Your task to perform on an android device: uninstall "Lyft - Rideshare, Bikes, Scooters & Transit" Image 0: 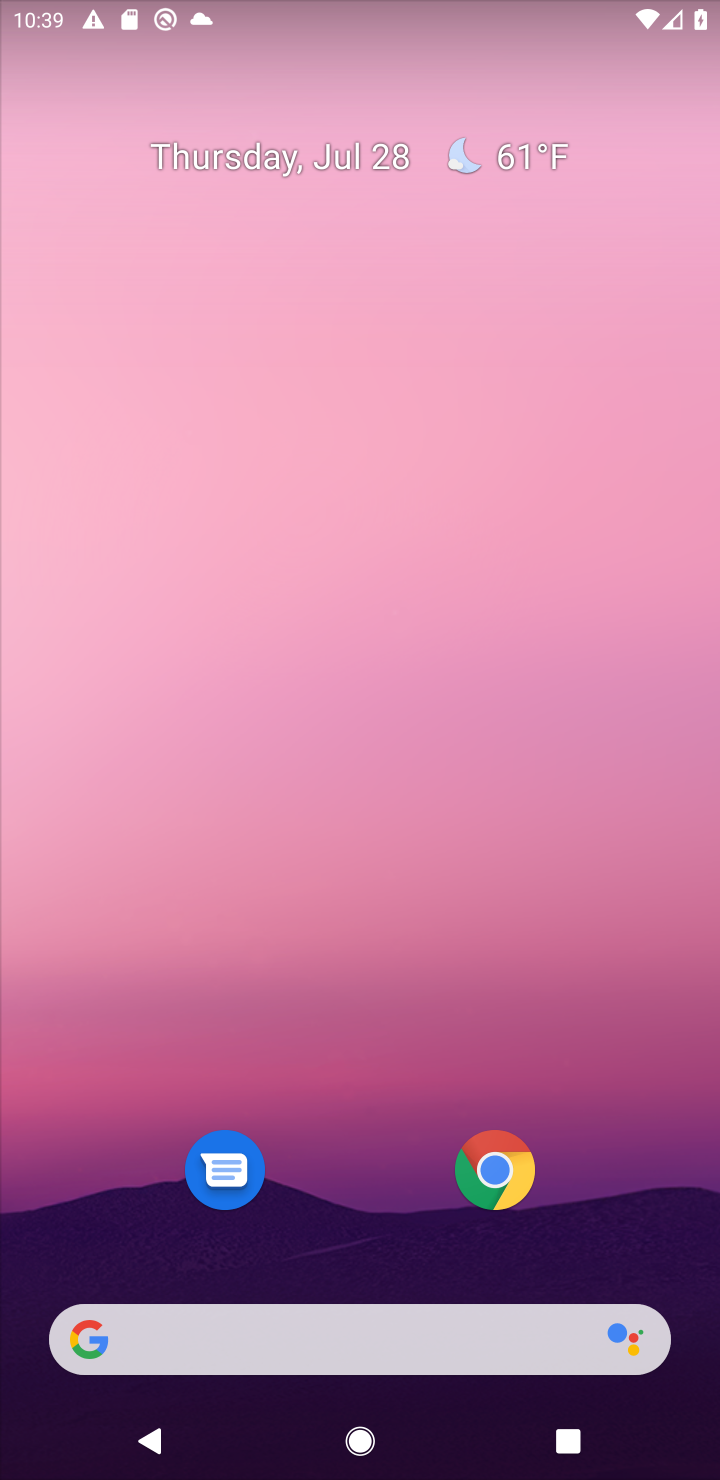
Step 0: press home button
Your task to perform on an android device: uninstall "Lyft - Rideshare, Bikes, Scooters & Transit" Image 1: 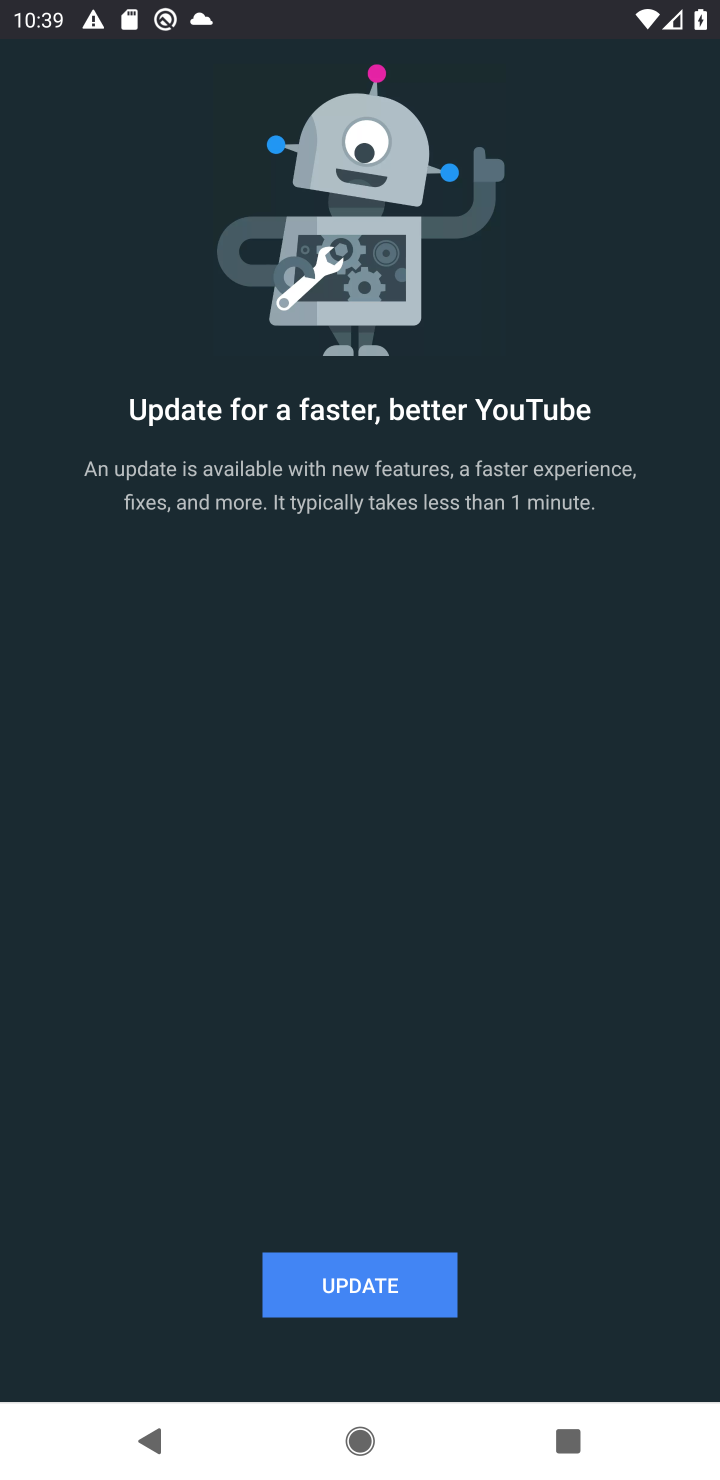
Step 1: drag from (293, 1234) to (484, 0)
Your task to perform on an android device: uninstall "Lyft - Rideshare, Bikes, Scooters & Transit" Image 2: 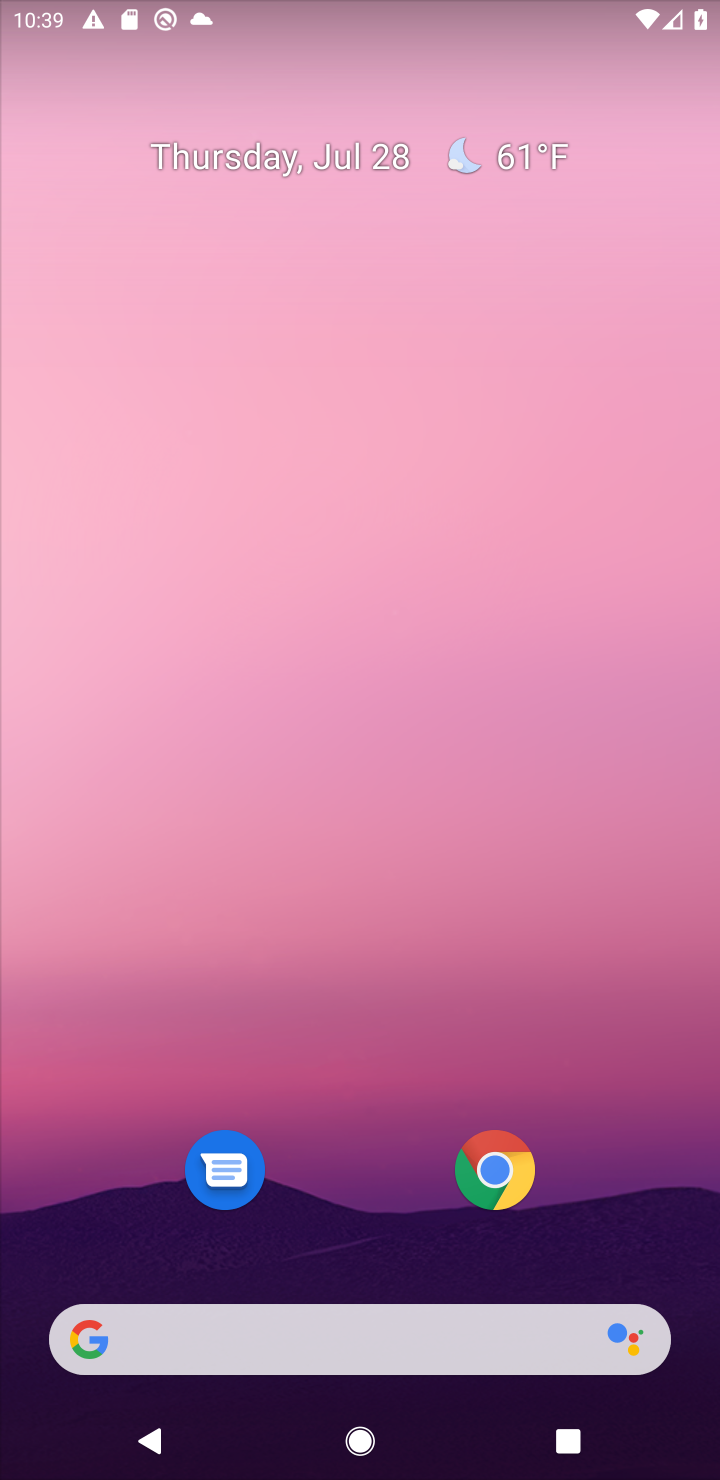
Step 2: drag from (340, 1163) to (507, 0)
Your task to perform on an android device: uninstall "Lyft - Rideshare, Bikes, Scooters & Transit" Image 3: 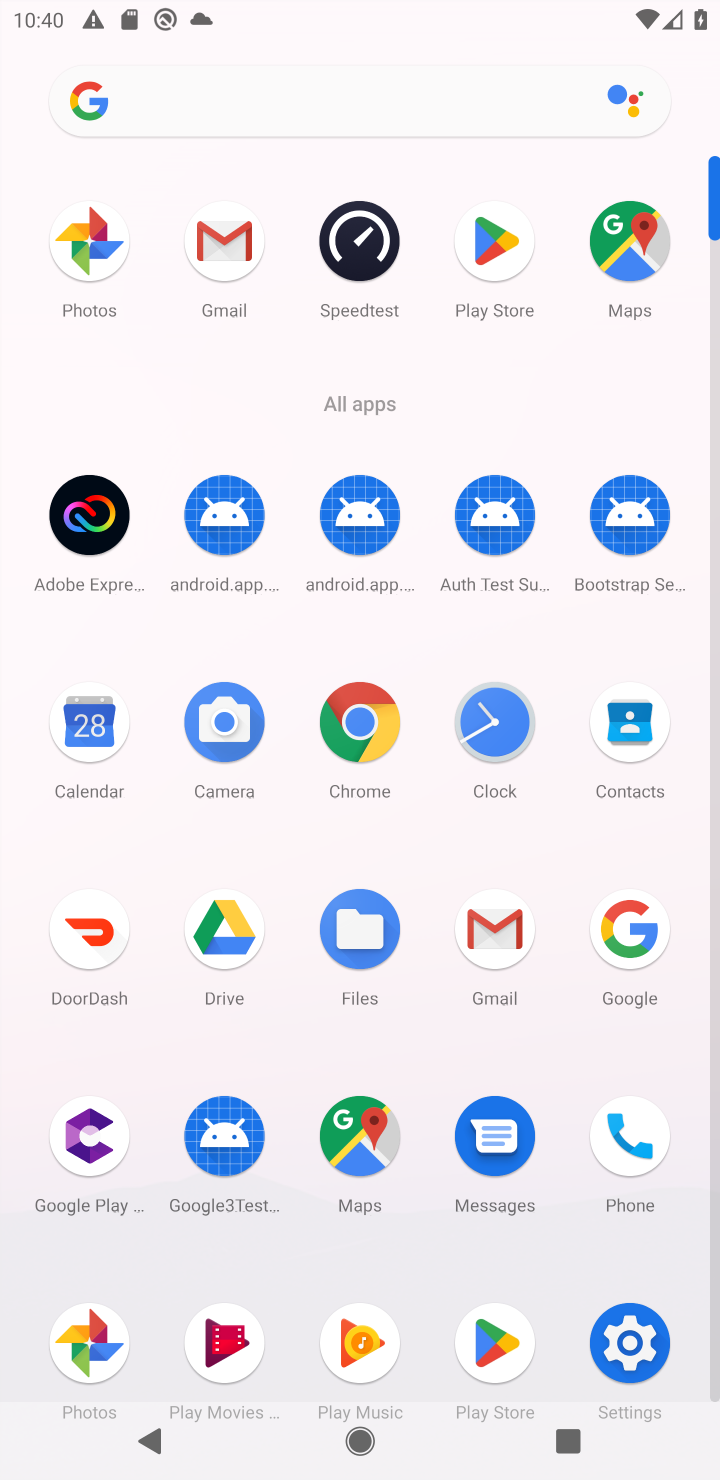
Step 3: click (519, 298)
Your task to perform on an android device: uninstall "Lyft - Rideshare, Bikes, Scooters & Transit" Image 4: 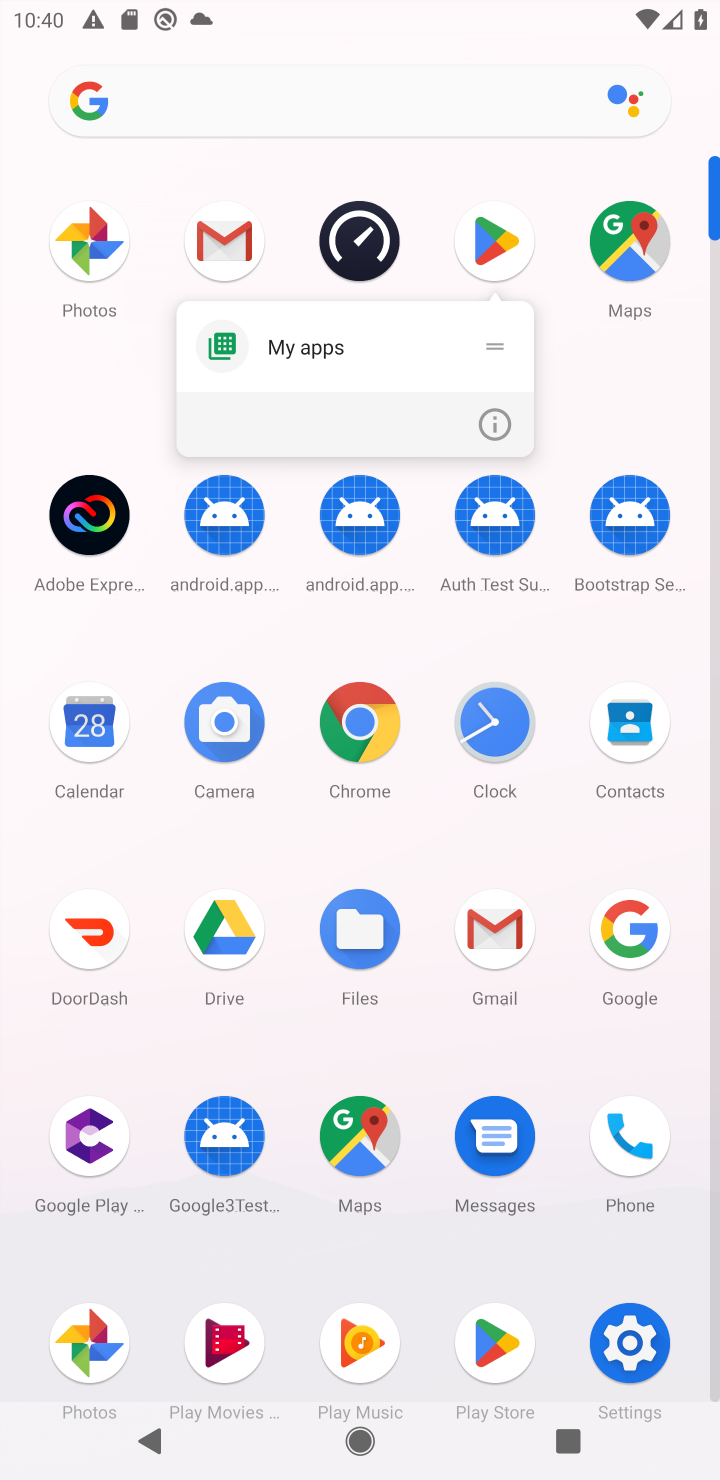
Step 4: click (505, 239)
Your task to perform on an android device: uninstall "Lyft - Rideshare, Bikes, Scooters & Transit" Image 5: 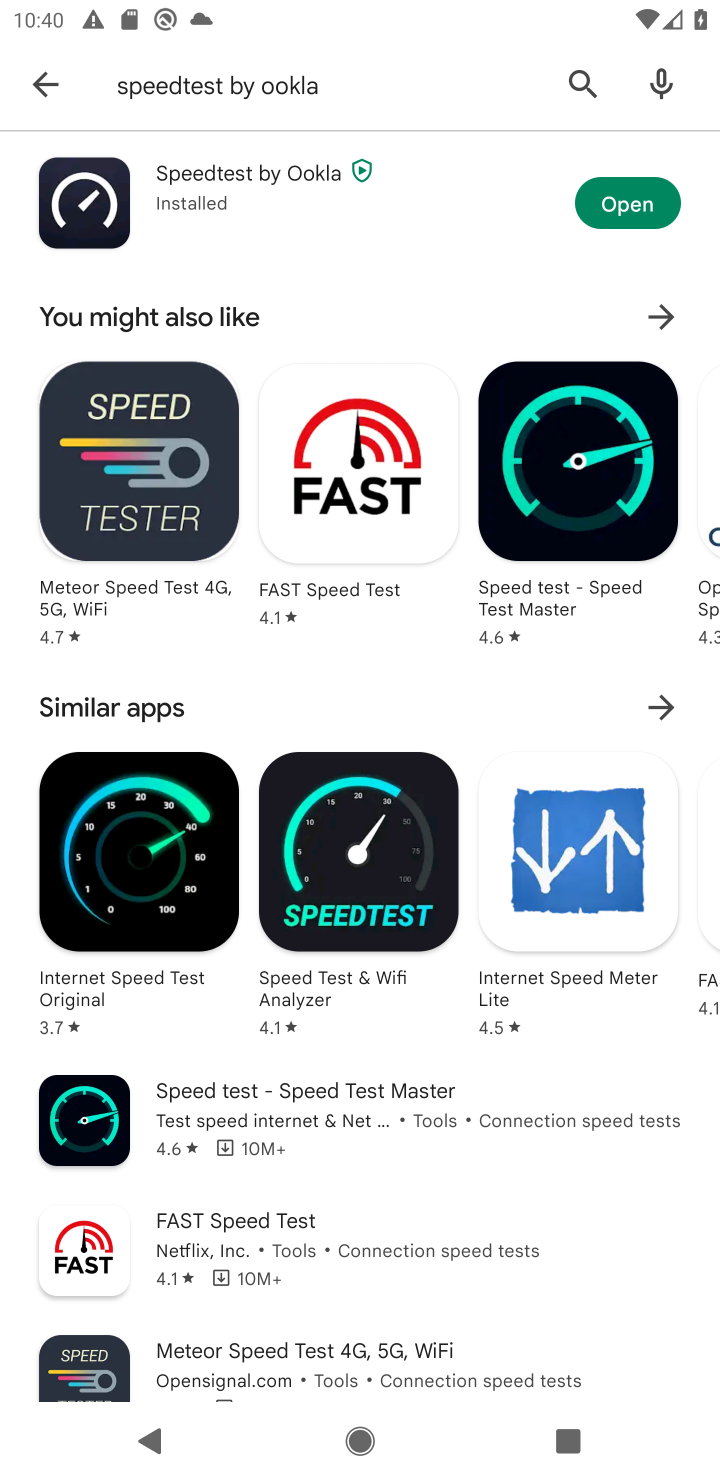
Step 5: click (265, 81)
Your task to perform on an android device: uninstall "Lyft - Rideshare, Bikes, Scooters & Transit" Image 6: 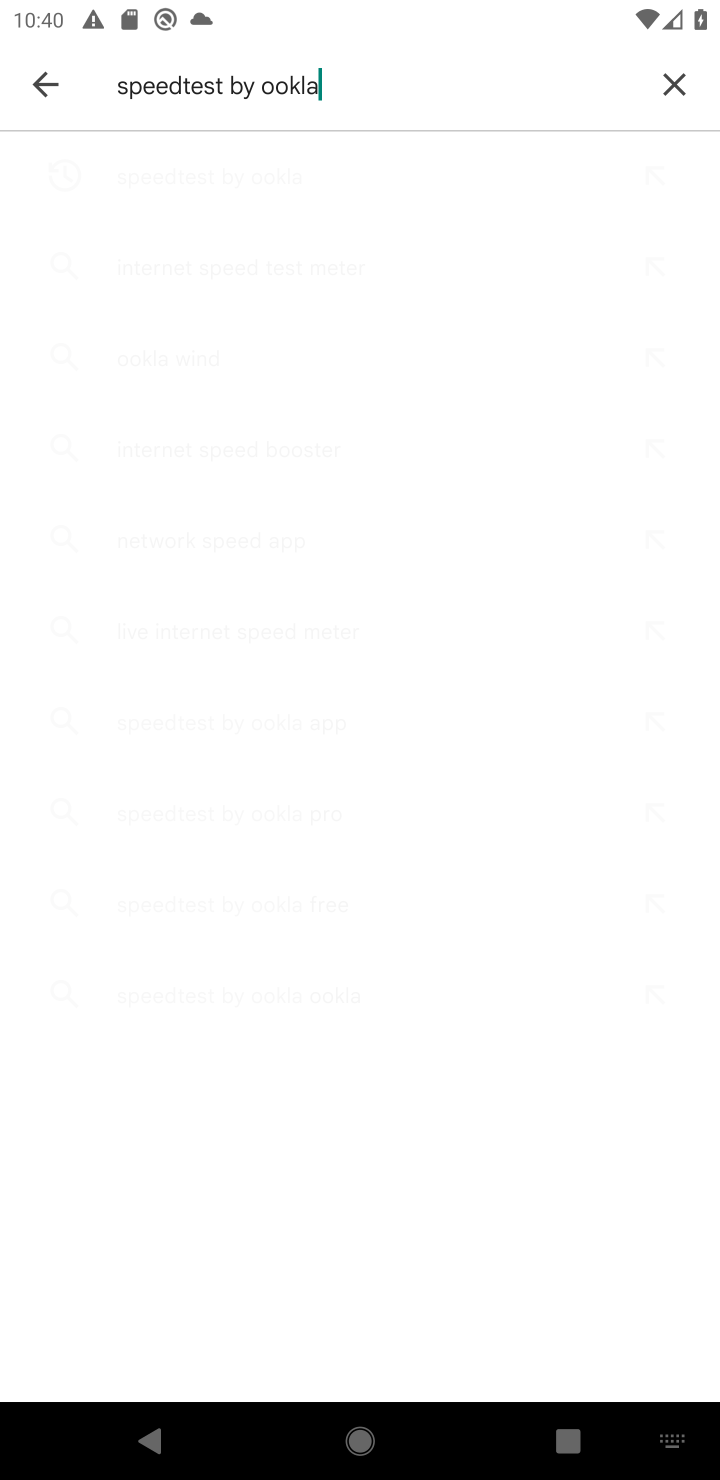
Step 6: click (660, 83)
Your task to perform on an android device: uninstall "Lyft - Rideshare, Bikes, Scooters & Transit" Image 7: 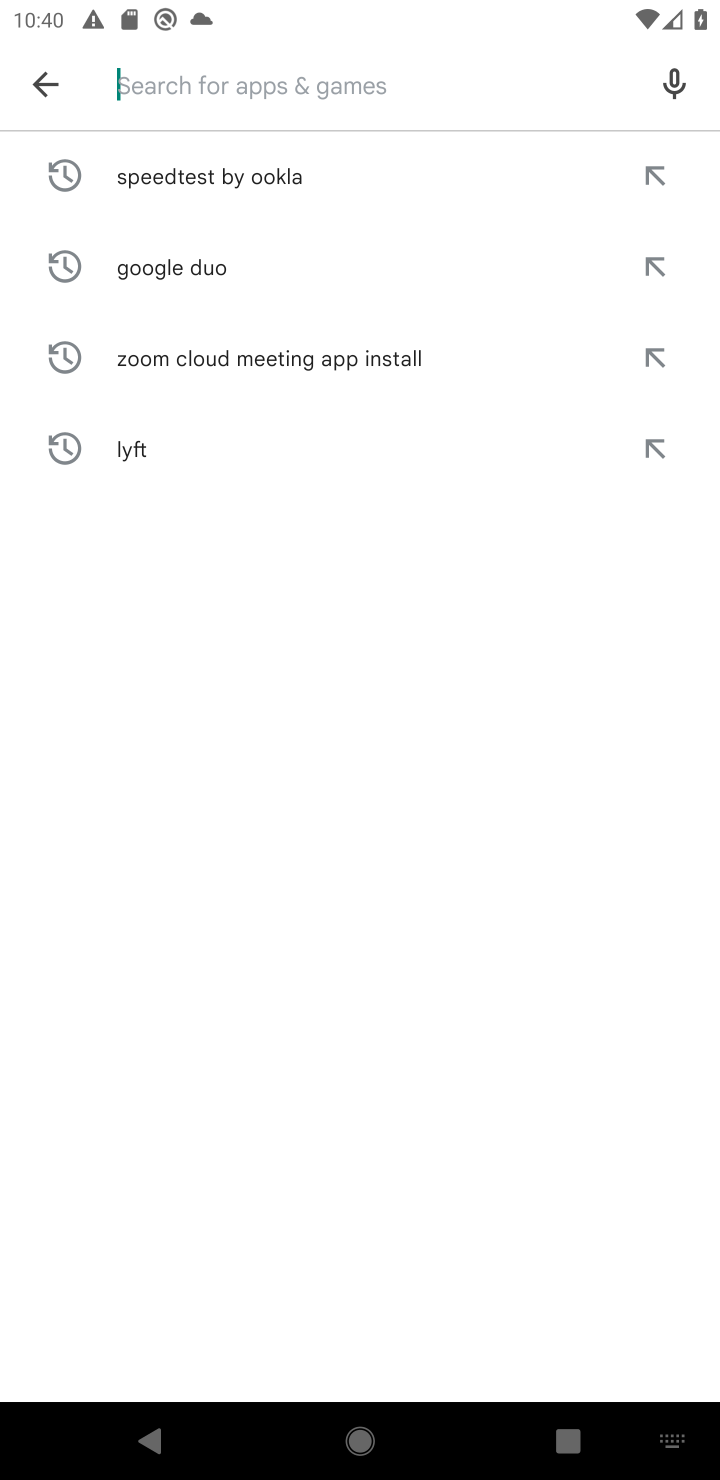
Step 7: type "lyft"
Your task to perform on an android device: uninstall "Lyft - Rideshare, Bikes, Scooters & Transit" Image 8: 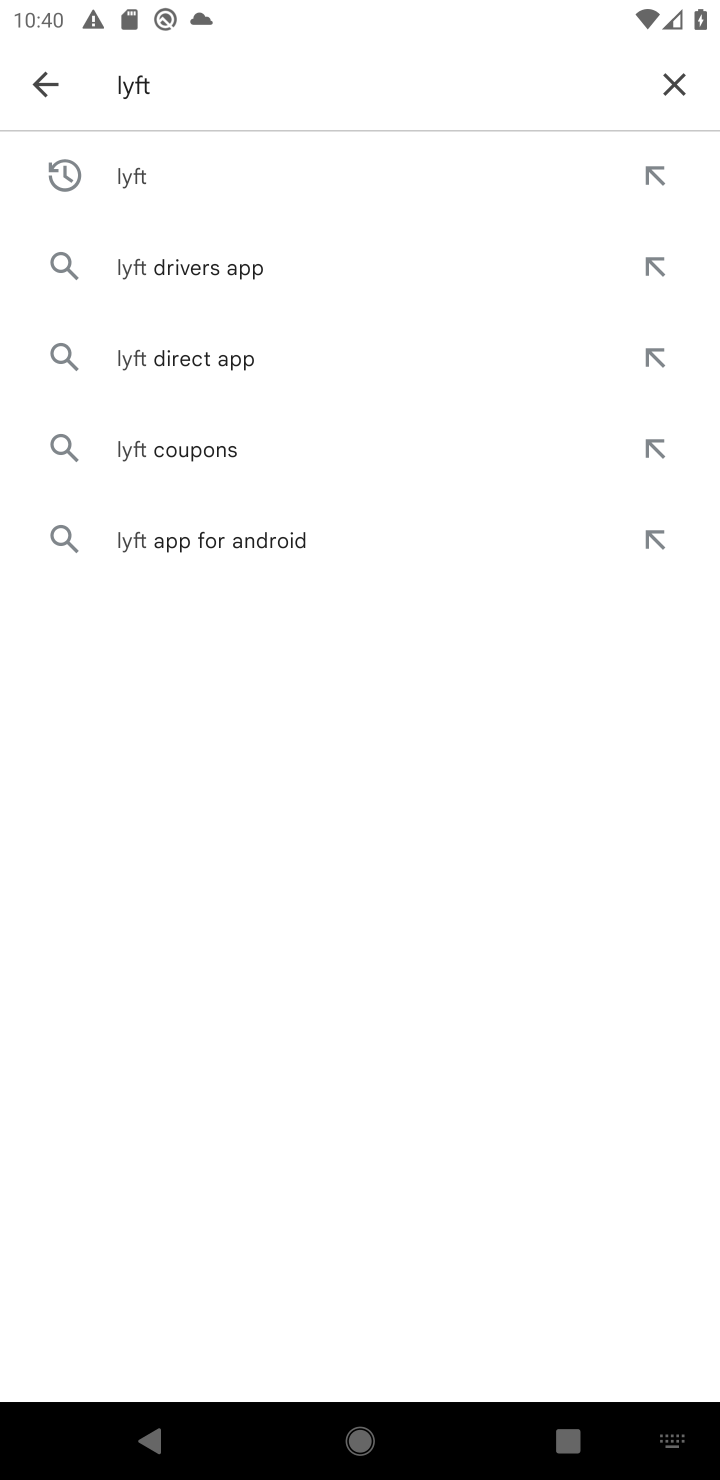
Step 8: click (141, 184)
Your task to perform on an android device: uninstall "Lyft - Rideshare, Bikes, Scooters & Transit" Image 9: 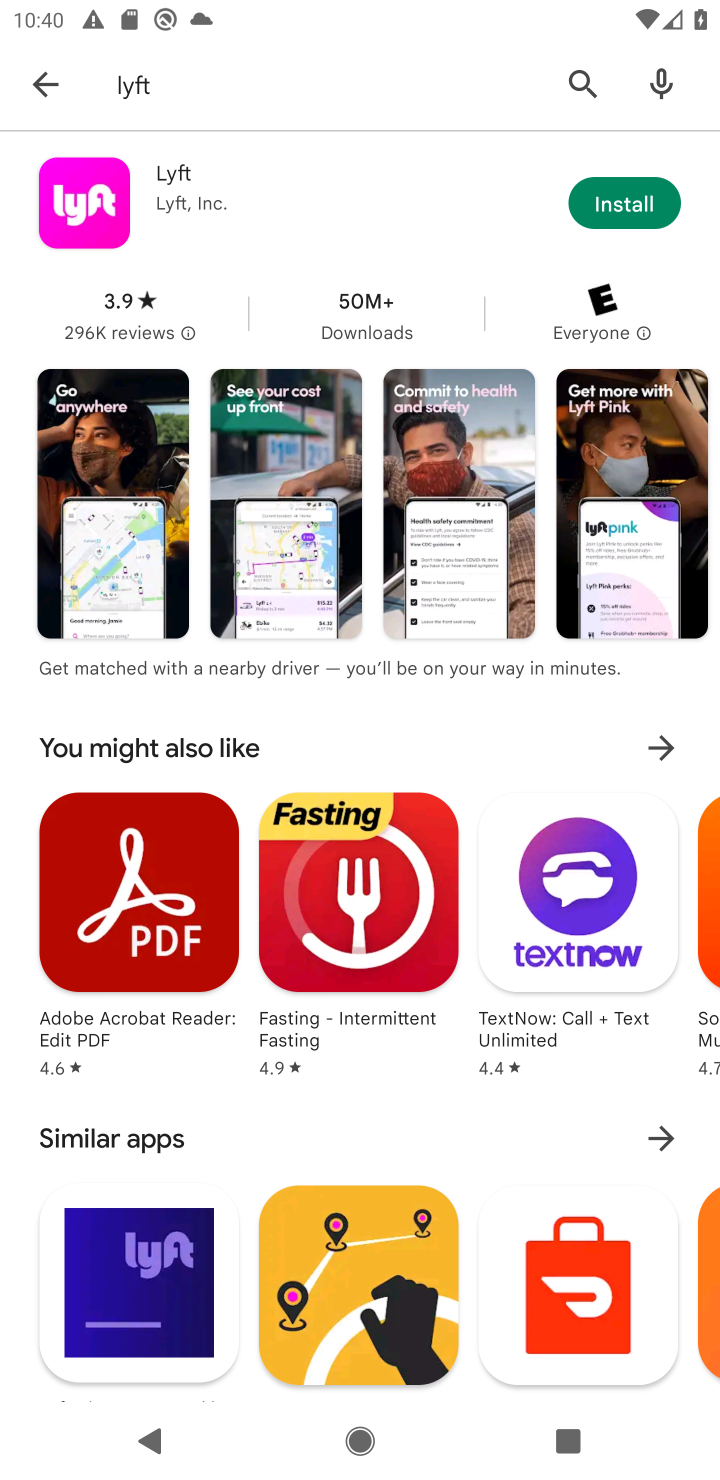
Step 9: task complete